Your task to perform on an android device: Open Wikipedia Image 0: 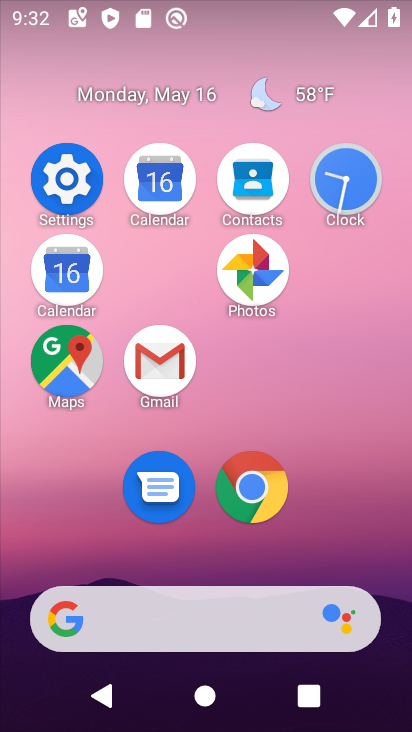
Step 0: click (246, 484)
Your task to perform on an android device: Open Wikipedia Image 1: 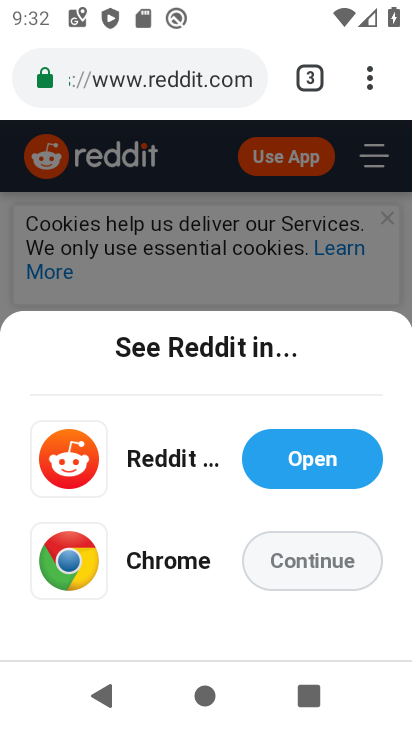
Step 1: click (308, 77)
Your task to perform on an android device: Open Wikipedia Image 2: 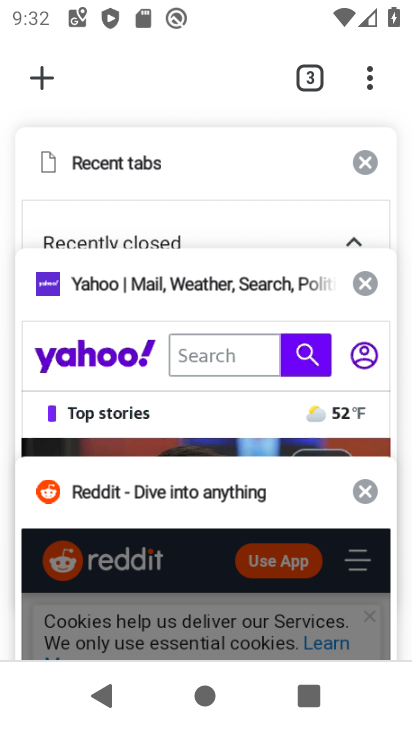
Step 2: click (54, 90)
Your task to perform on an android device: Open Wikipedia Image 3: 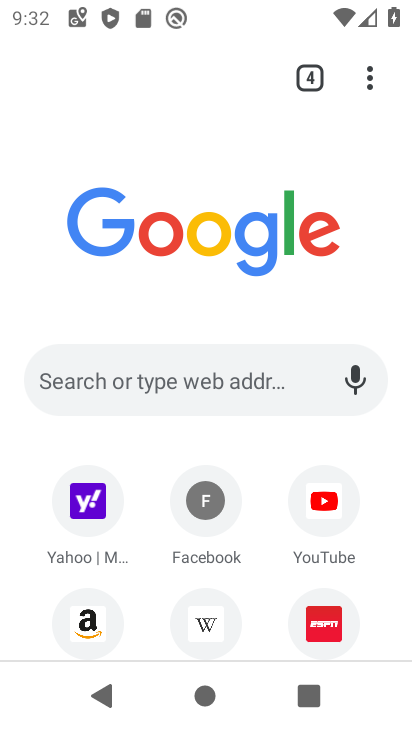
Step 3: click (207, 613)
Your task to perform on an android device: Open Wikipedia Image 4: 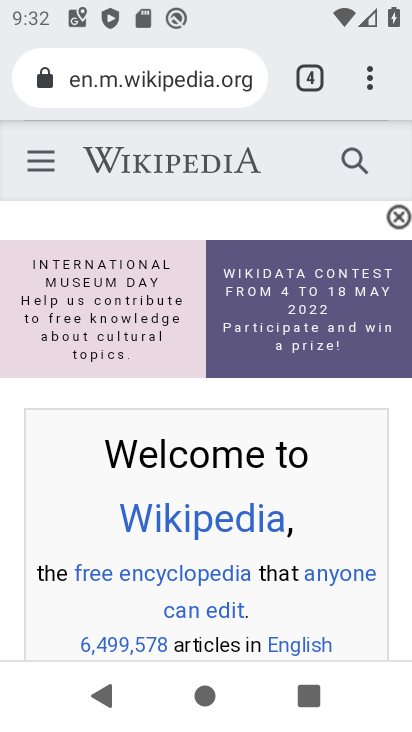
Step 4: task complete